Your task to perform on an android device: Open maps Image 0: 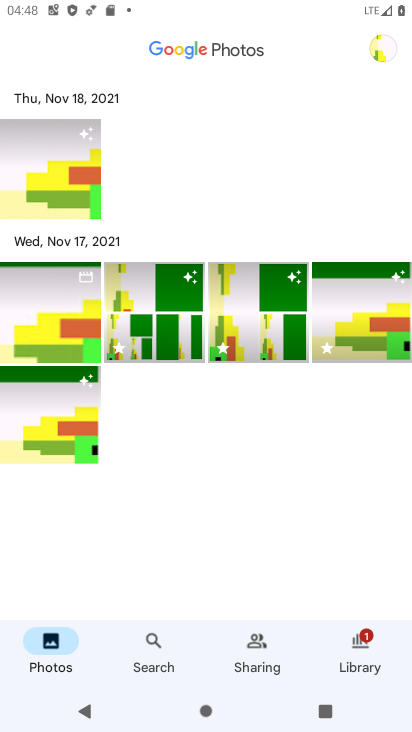
Step 0: press back button
Your task to perform on an android device: Open maps Image 1: 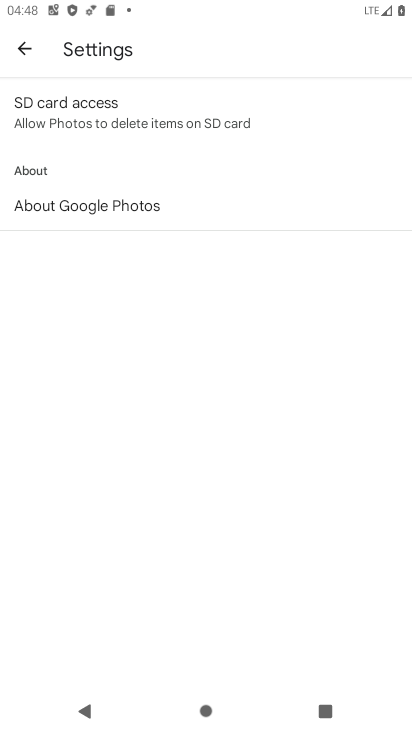
Step 1: press back button
Your task to perform on an android device: Open maps Image 2: 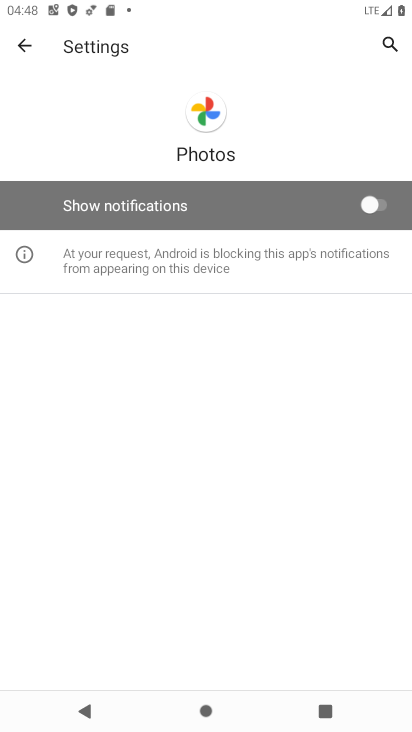
Step 2: press back button
Your task to perform on an android device: Open maps Image 3: 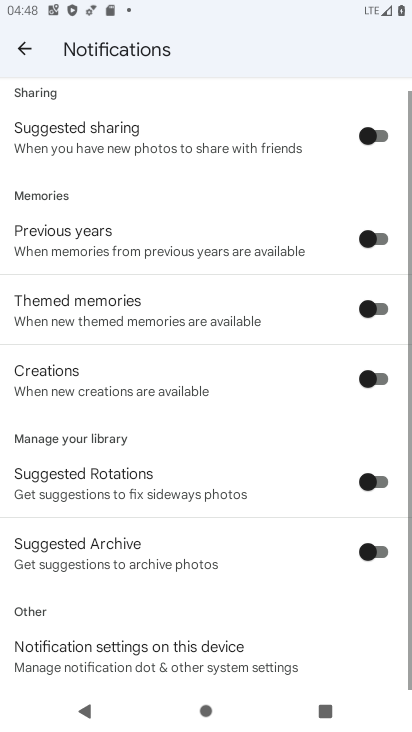
Step 3: press back button
Your task to perform on an android device: Open maps Image 4: 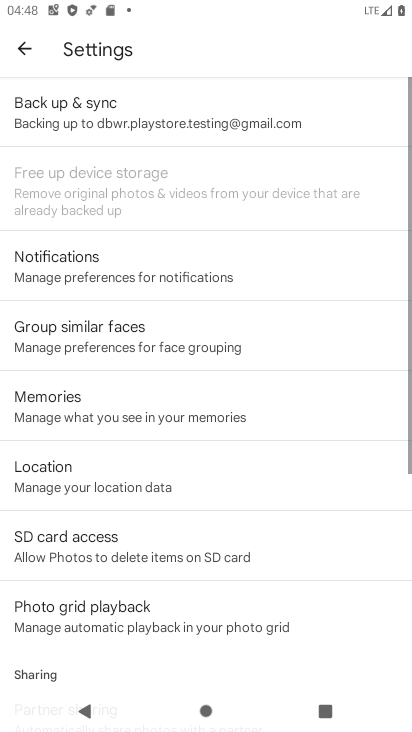
Step 4: press back button
Your task to perform on an android device: Open maps Image 5: 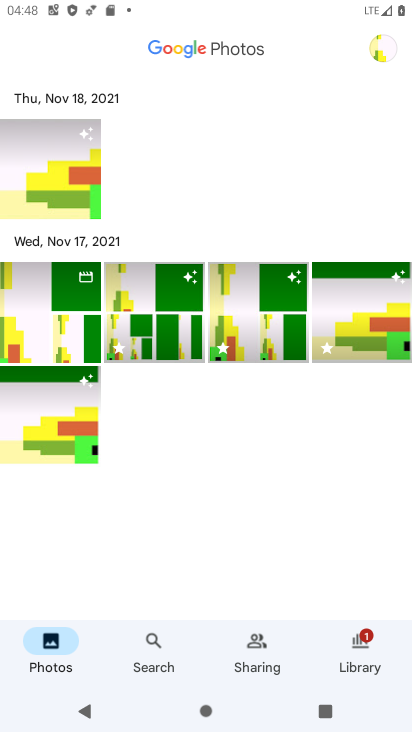
Step 5: press back button
Your task to perform on an android device: Open maps Image 6: 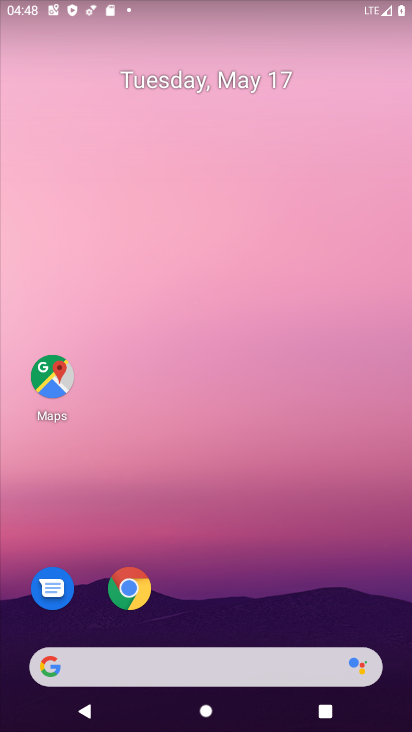
Step 6: click (48, 374)
Your task to perform on an android device: Open maps Image 7: 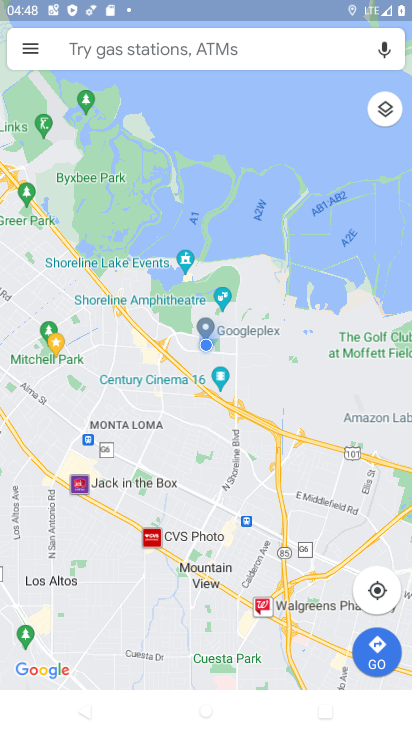
Step 7: task complete